Your task to perform on an android device: turn on sleep mode Image 0: 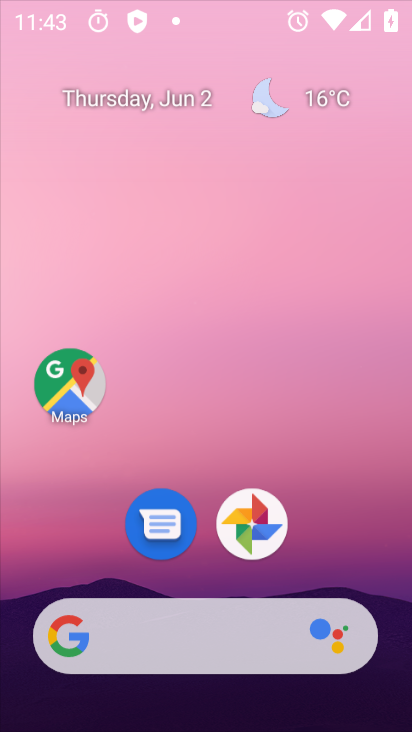
Step 0: drag from (281, 705) to (187, 115)
Your task to perform on an android device: turn on sleep mode Image 1: 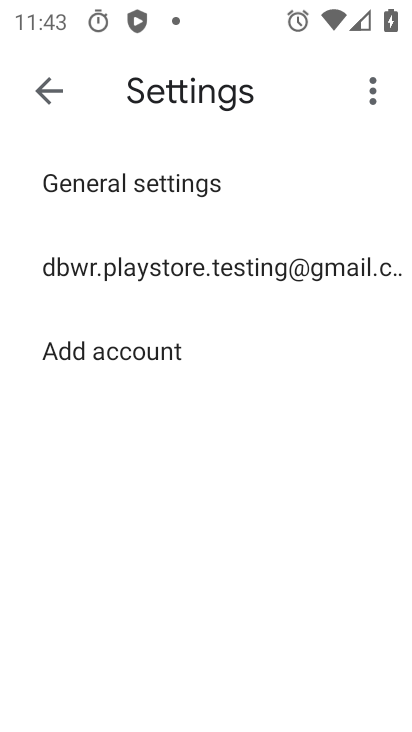
Step 1: click (40, 67)
Your task to perform on an android device: turn on sleep mode Image 2: 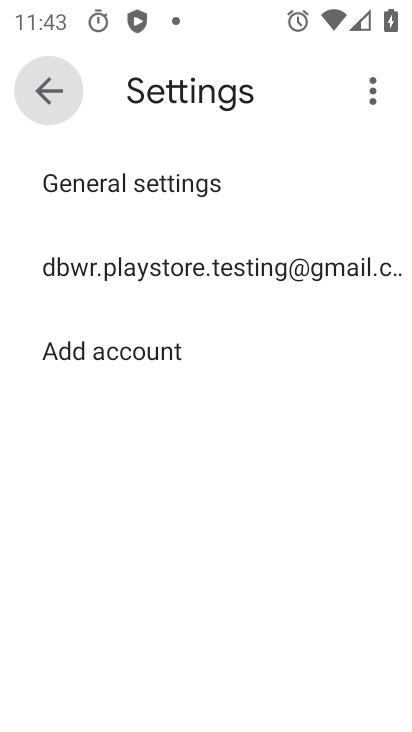
Step 2: click (45, 89)
Your task to perform on an android device: turn on sleep mode Image 3: 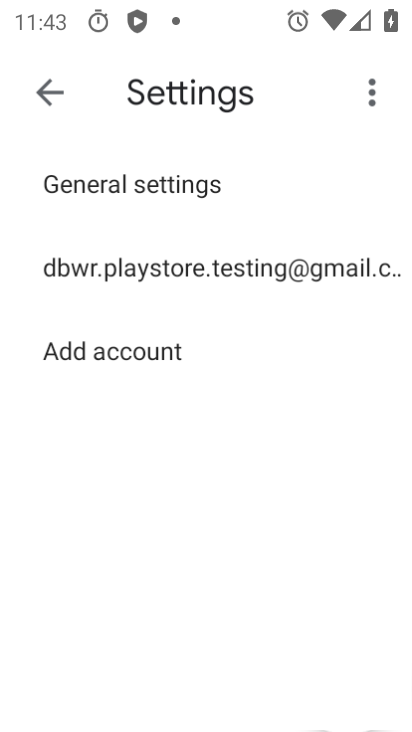
Step 3: click (46, 90)
Your task to perform on an android device: turn on sleep mode Image 4: 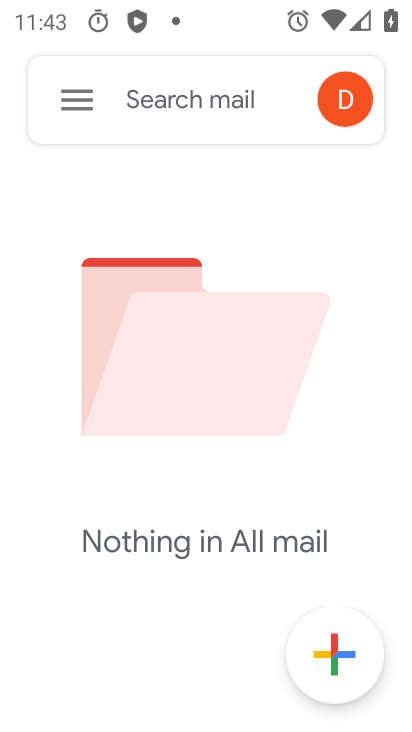
Step 4: click (47, 89)
Your task to perform on an android device: turn on sleep mode Image 5: 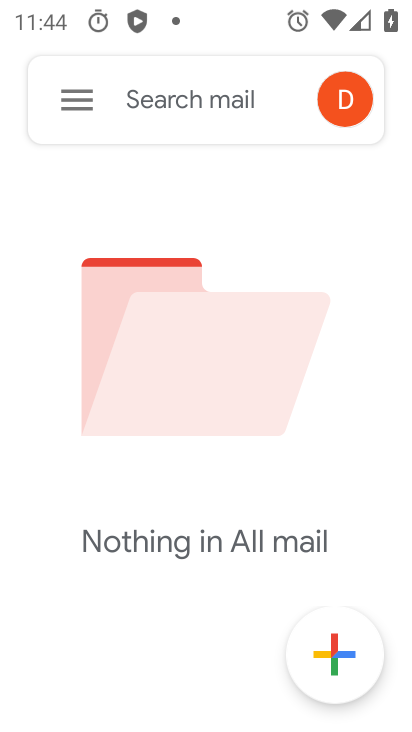
Step 5: press back button
Your task to perform on an android device: turn on sleep mode Image 6: 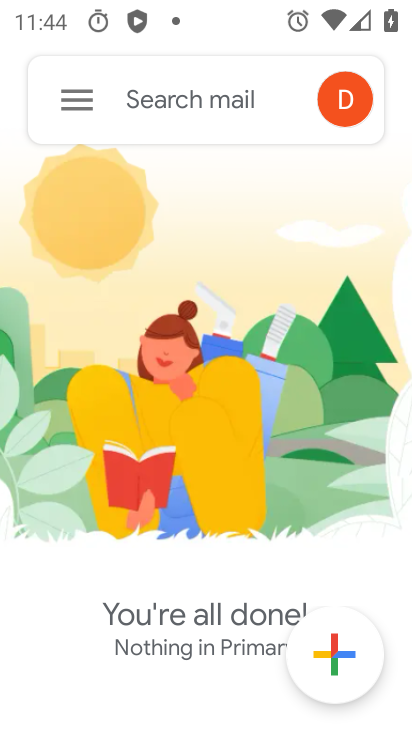
Step 6: press home button
Your task to perform on an android device: turn on sleep mode Image 7: 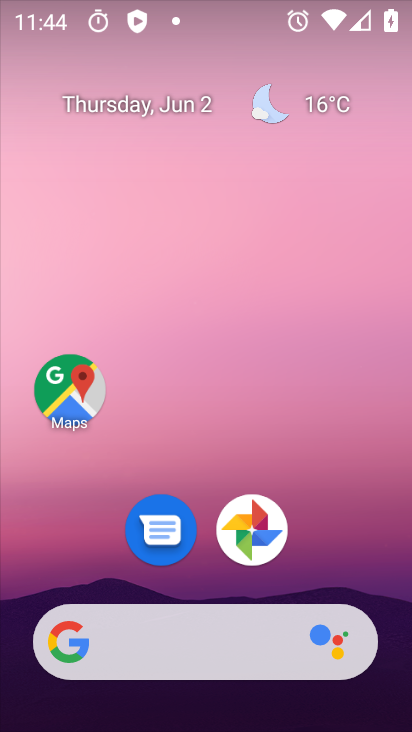
Step 7: drag from (232, 539) to (159, 109)
Your task to perform on an android device: turn on sleep mode Image 8: 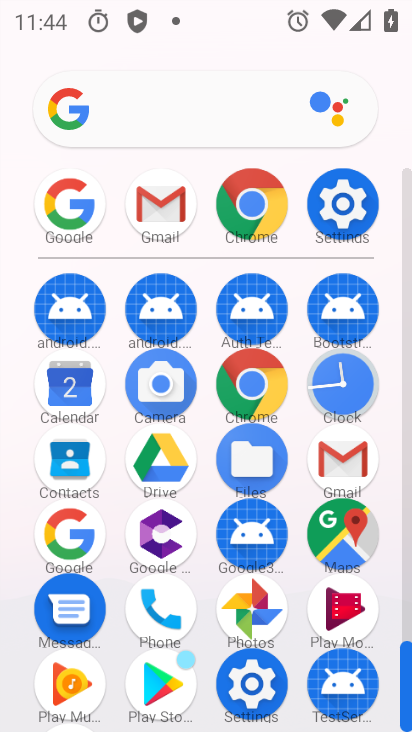
Step 8: click (248, 681)
Your task to perform on an android device: turn on sleep mode Image 9: 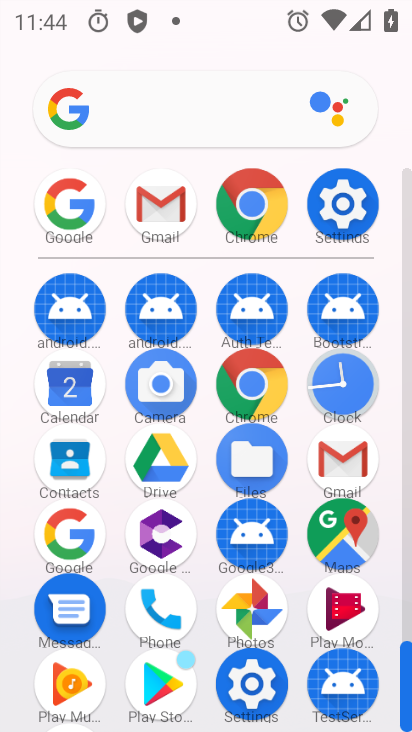
Step 9: click (247, 682)
Your task to perform on an android device: turn on sleep mode Image 10: 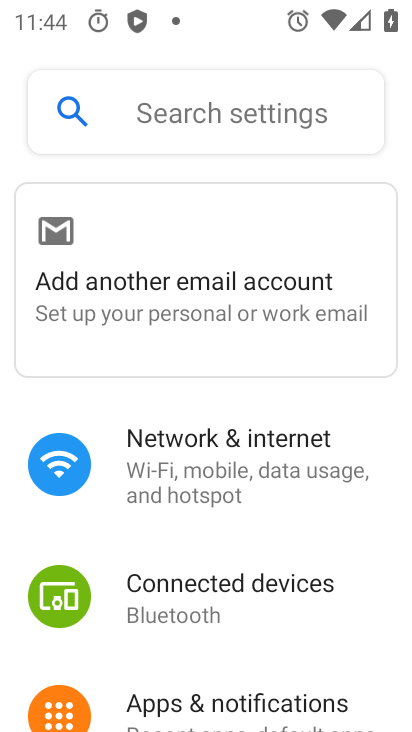
Step 10: drag from (222, 659) to (154, 370)
Your task to perform on an android device: turn on sleep mode Image 11: 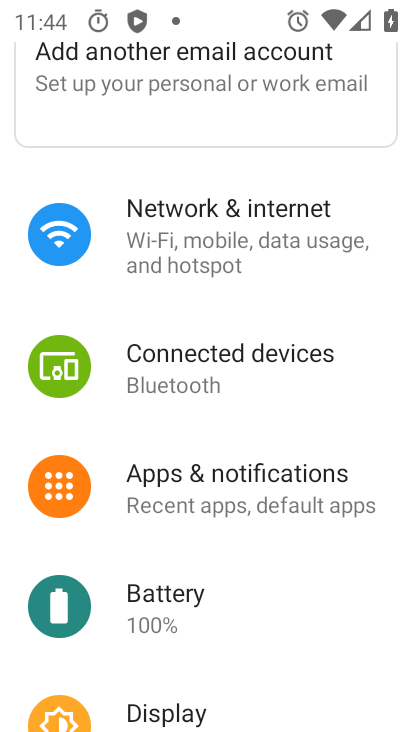
Step 11: drag from (271, 593) to (214, 324)
Your task to perform on an android device: turn on sleep mode Image 12: 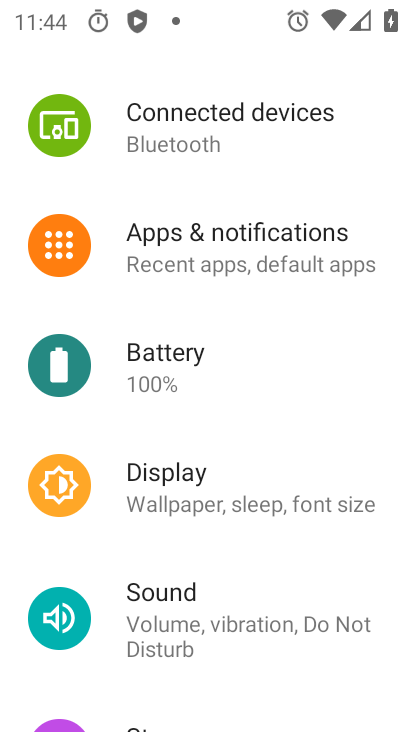
Step 12: click (178, 502)
Your task to perform on an android device: turn on sleep mode Image 13: 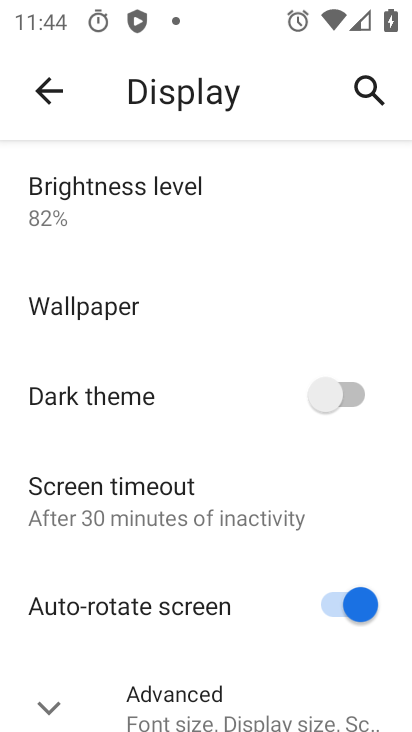
Step 13: drag from (222, 530) to (144, 108)
Your task to perform on an android device: turn on sleep mode Image 14: 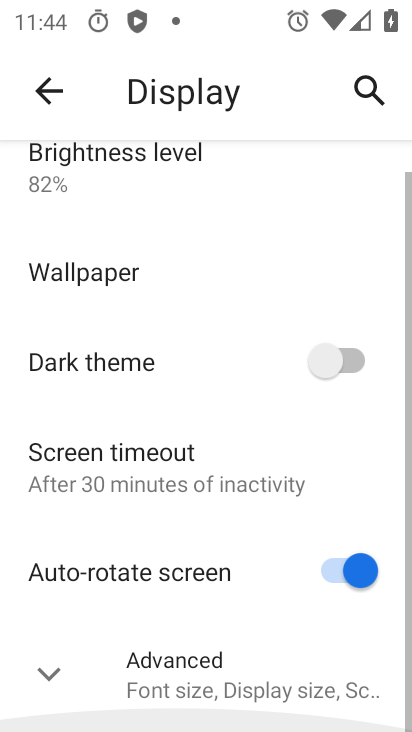
Step 14: drag from (221, 414) to (204, 203)
Your task to perform on an android device: turn on sleep mode Image 15: 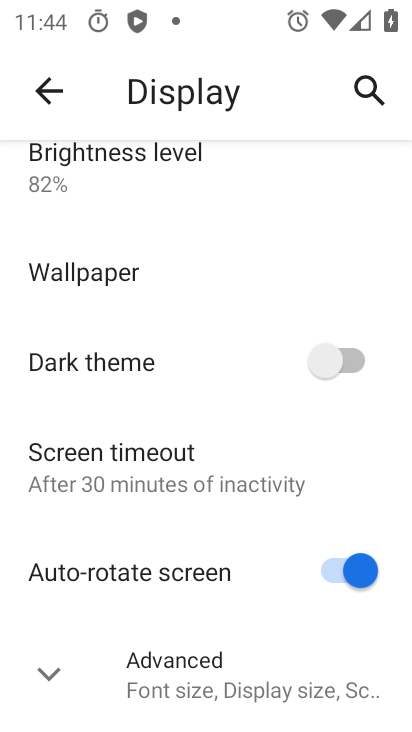
Step 15: click (209, 676)
Your task to perform on an android device: turn on sleep mode Image 16: 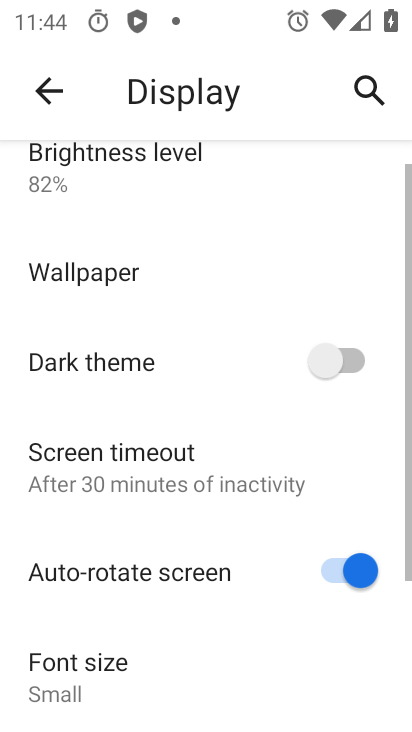
Step 16: drag from (202, 628) to (186, 284)
Your task to perform on an android device: turn on sleep mode Image 17: 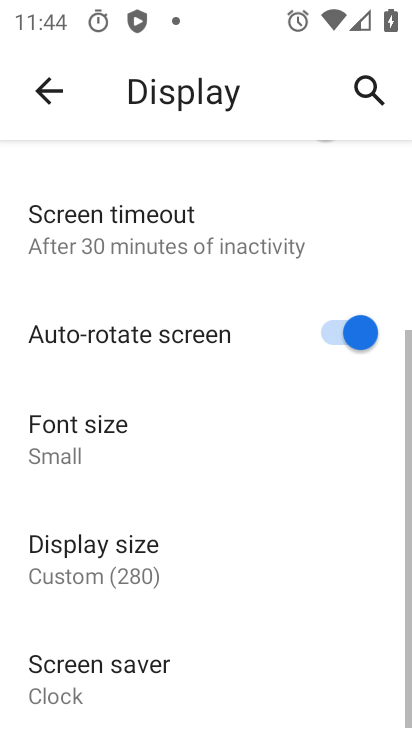
Step 17: drag from (186, 314) to (186, 138)
Your task to perform on an android device: turn on sleep mode Image 18: 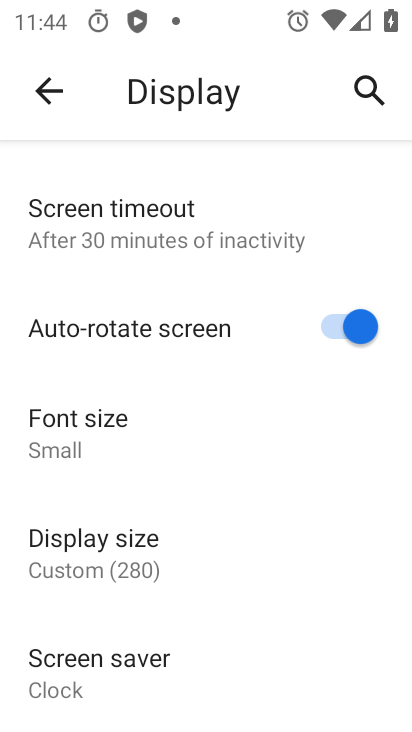
Step 18: click (69, 436)
Your task to perform on an android device: turn on sleep mode Image 19: 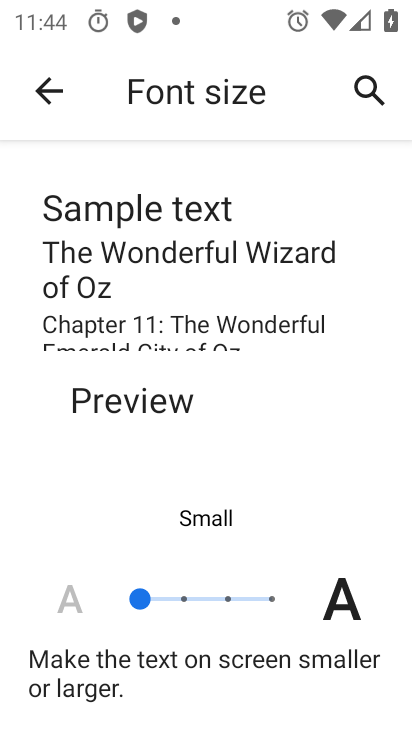
Step 19: click (190, 591)
Your task to perform on an android device: turn on sleep mode Image 20: 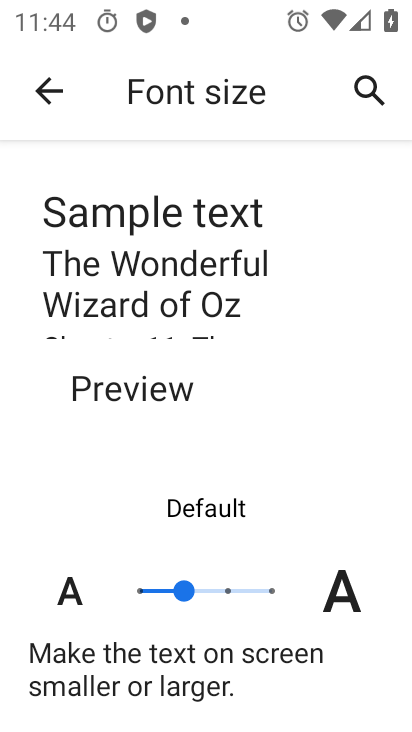
Step 20: click (33, 70)
Your task to perform on an android device: turn on sleep mode Image 21: 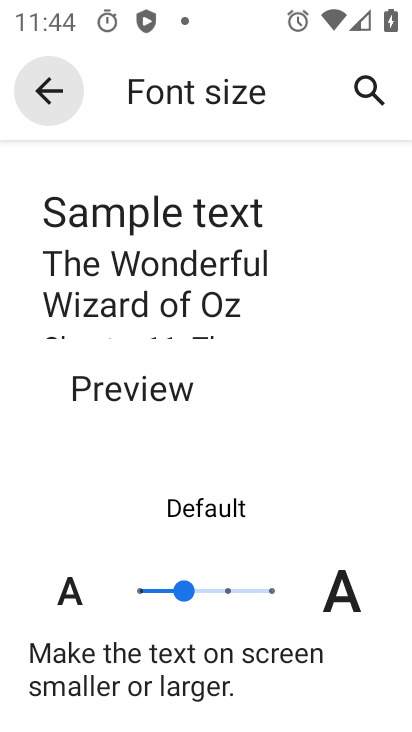
Step 21: click (36, 75)
Your task to perform on an android device: turn on sleep mode Image 22: 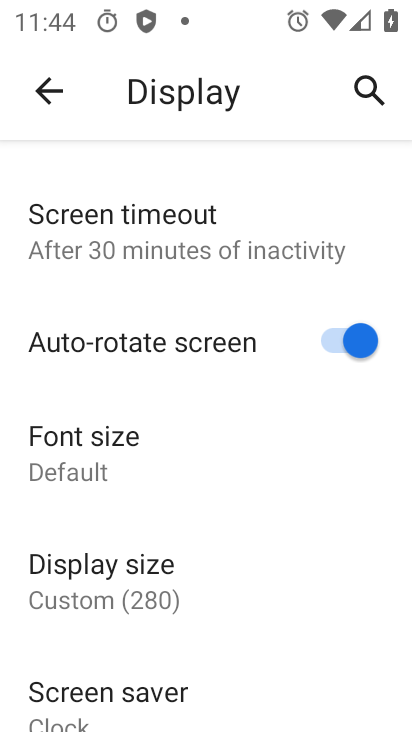
Step 22: task complete